Your task to perform on an android device: Do I have any events today? Image 0: 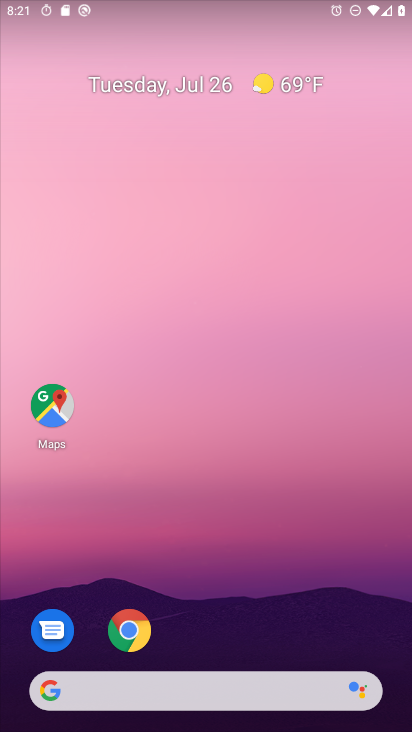
Step 0: drag from (256, 647) to (251, 187)
Your task to perform on an android device: Do I have any events today? Image 1: 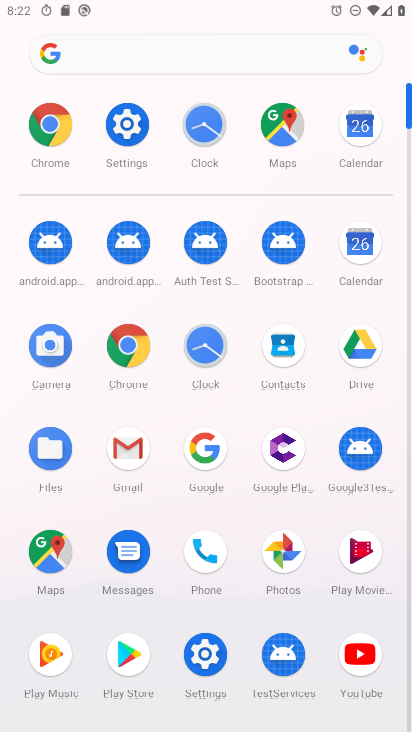
Step 1: click (354, 263)
Your task to perform on an android device: Do I have any events today? Image 2: 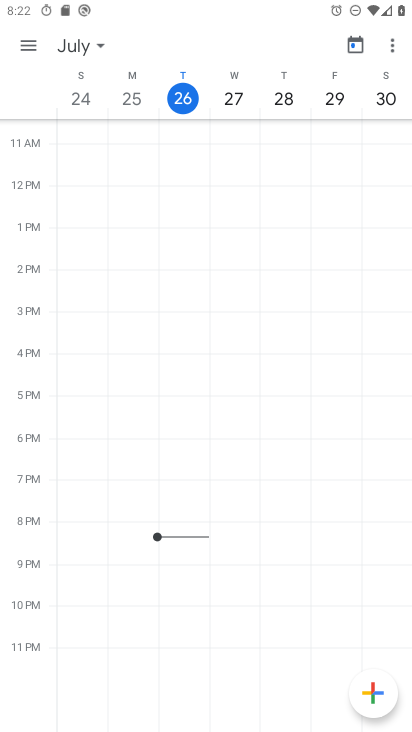
Step 2: task complete